Your task to perform on an android device: check data usage Image 0: 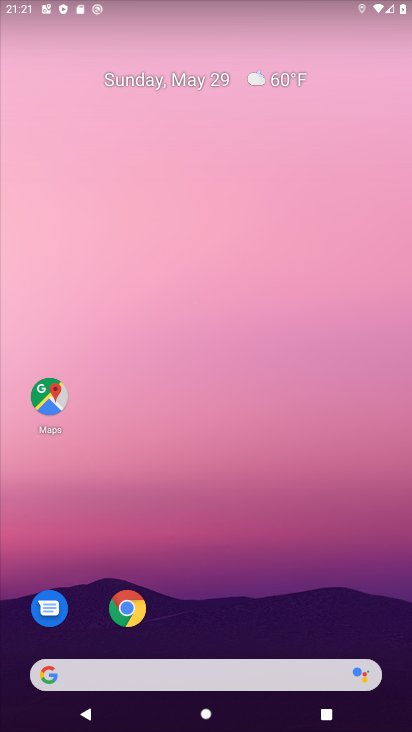
Step 0: drag from (357, 610) to (346, 176)
Your task to perform on an android device: check data usage Image 1: 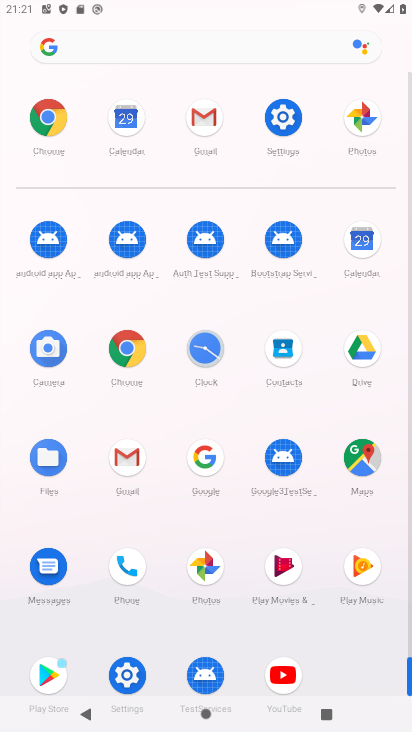
Step 1: click (291, 129)
Your task to perform on an android device: check data usage Image 2: 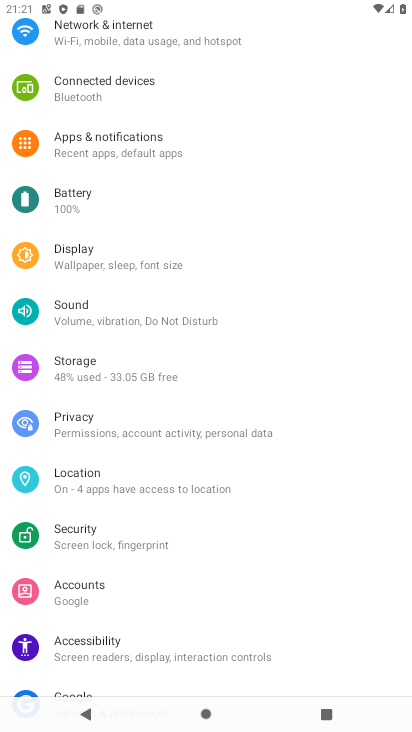
Step 2: click (210, 40)
Your task to perform on an android device: check data usage Image 3: 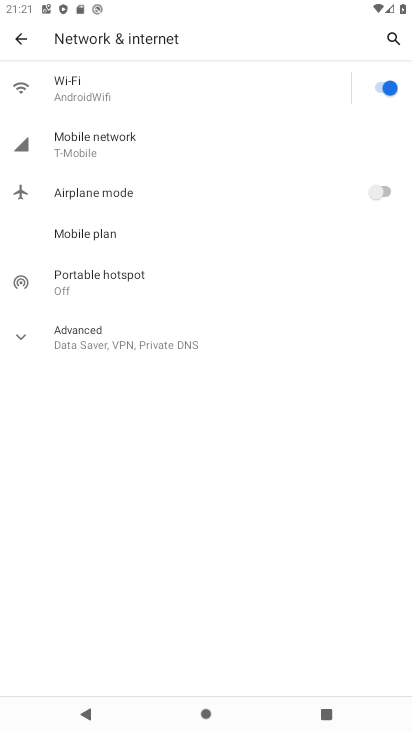
Step 3: click (120, 144)
Your task to perform on an android device: check data usage Image 4: 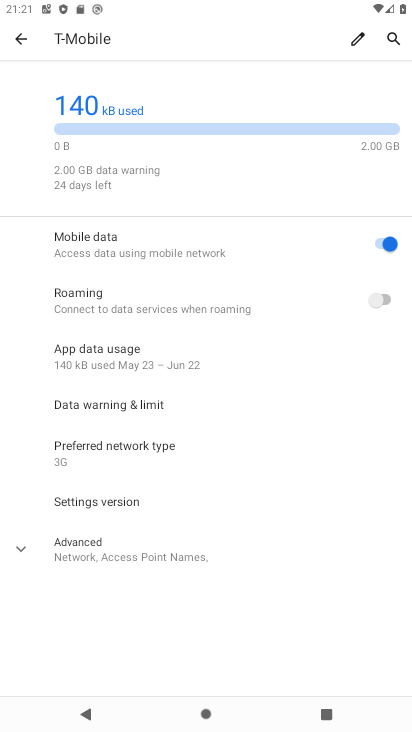
Step 4: click (107, 367)
Your task to perform on an android device: check data usage Image 5: 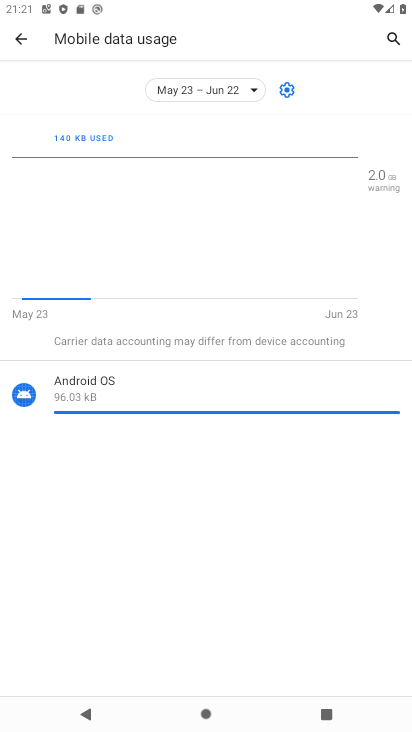
Step 5: task complete